Your task to perform on an android device: see sites visited before in the chrome app Image 0: 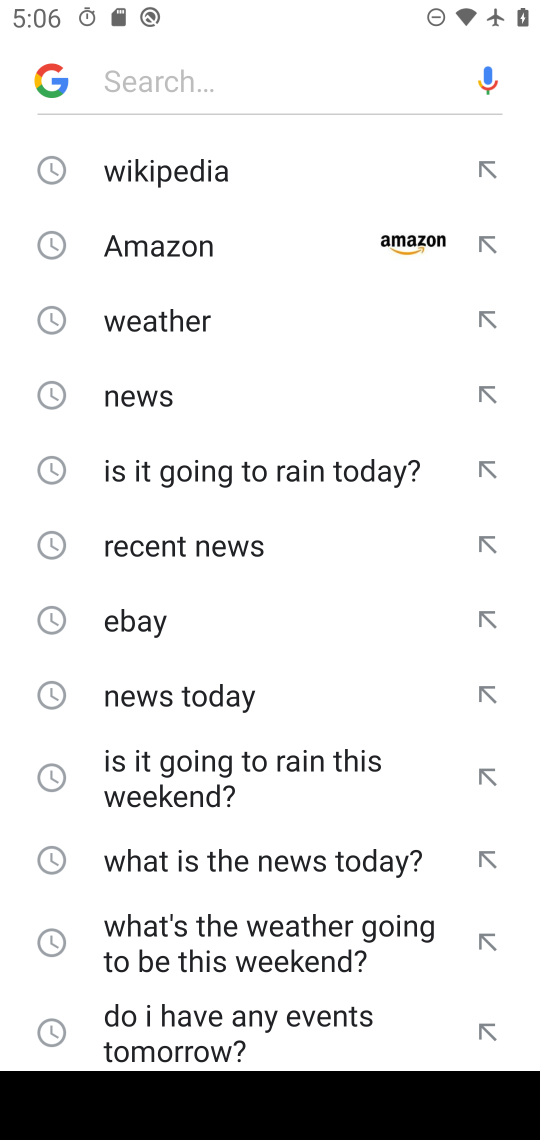
Step 0: press home button
Your task to perform on an android device: see sites visited before in the chrome app Image 1: 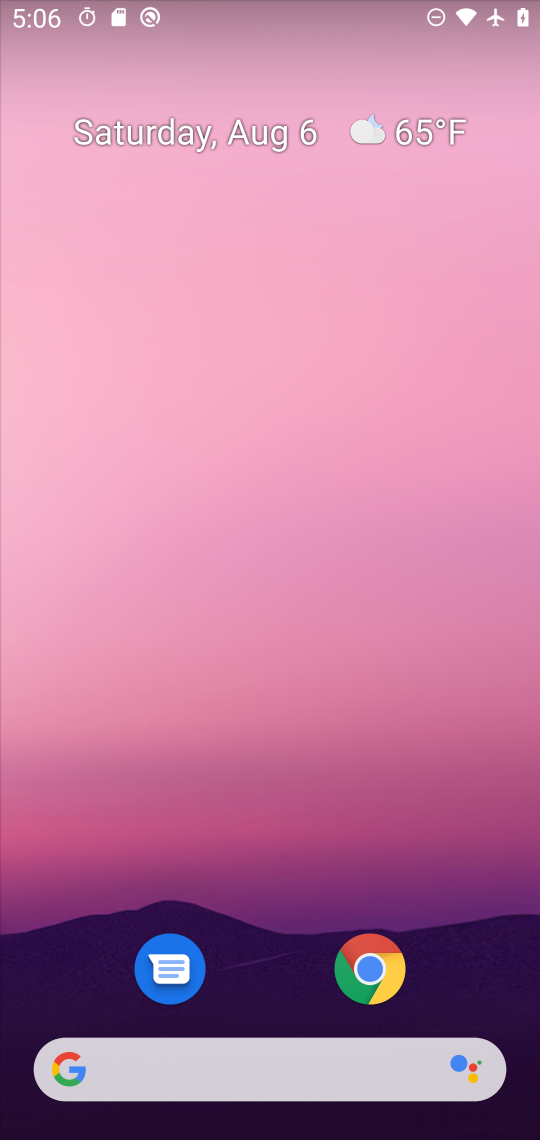
Step 1: drag from (298, 959) to (390, 318)
Your task to perform on an android device: see sites visited before in the chrome app Image 2: 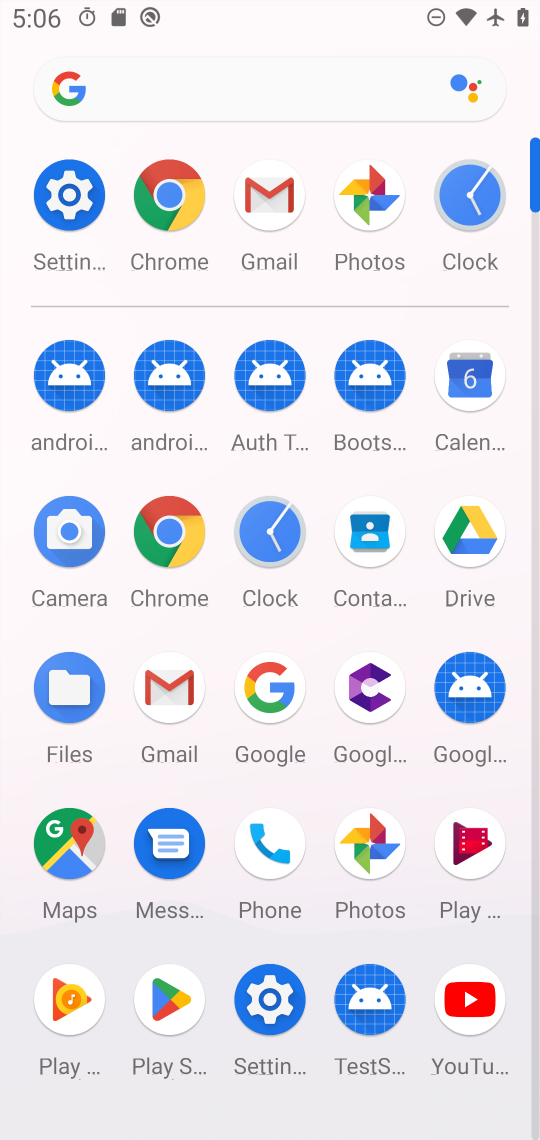
Step 2: click (161, 218)
Your task to perform on an android device: see sites visited before in the chrome app Image 3: 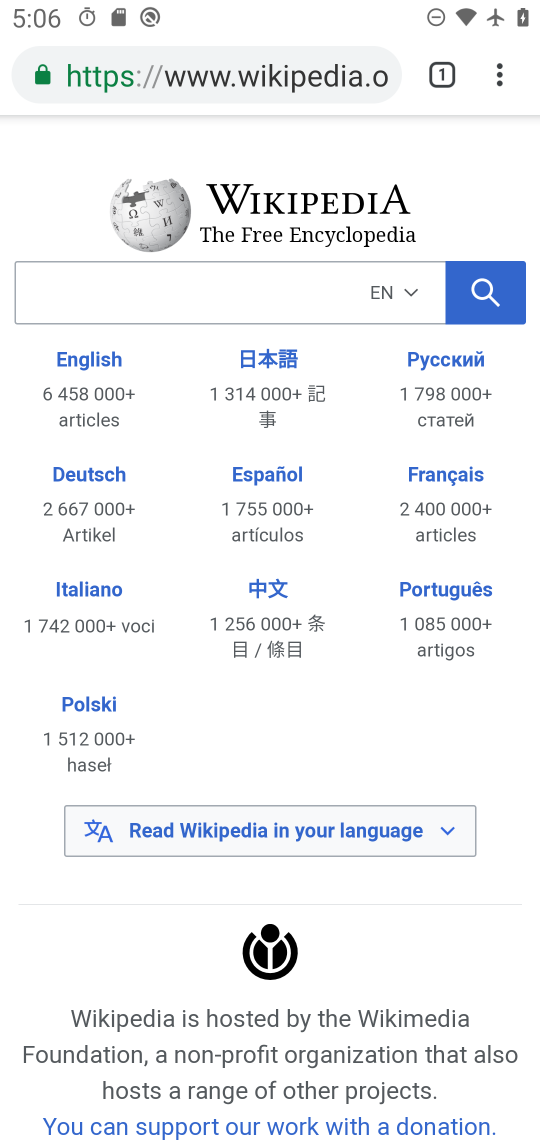
Step 3: task complete